Your task to perform on an android device: turn off smart reply in the gmail app Image 0: 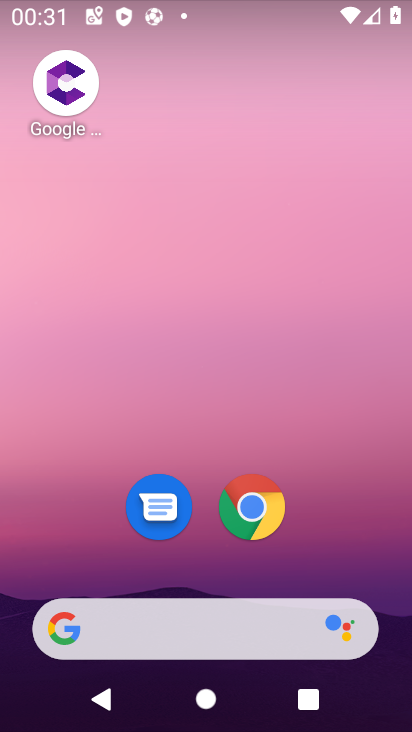
Step 0: drag from (224, 547) to (233, 138)
Your task to perform on an android device: turn off smart reply in the gmail app Image 1: 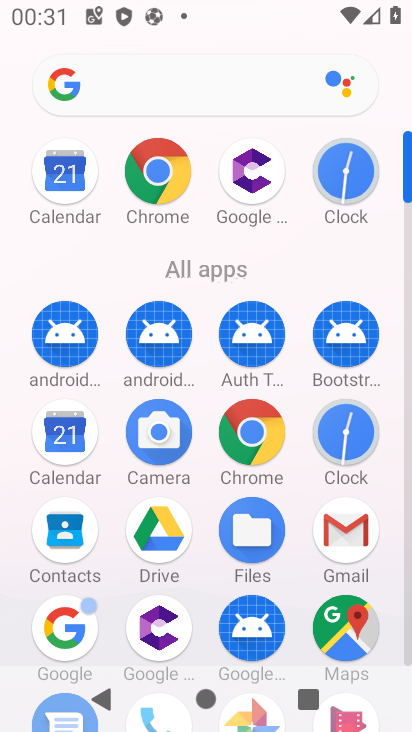
Step 1: click (348, 543)
Your task to perform on an android device: turn off smart reply in the gmail app Image 2: 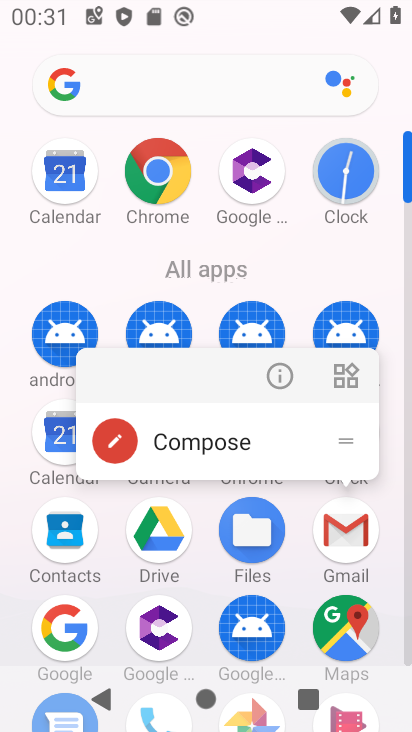
Step 2: click (289, 370)
Your task to perform on an android device: turn off smart reply in the gmail app Image 3: 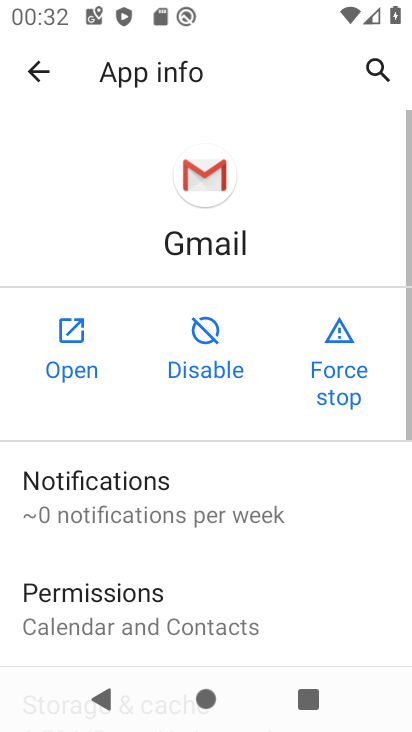
Step 3: click (46, 344)
Your task to perform on an android device: turn off smart reply in the gmail app Image 4: 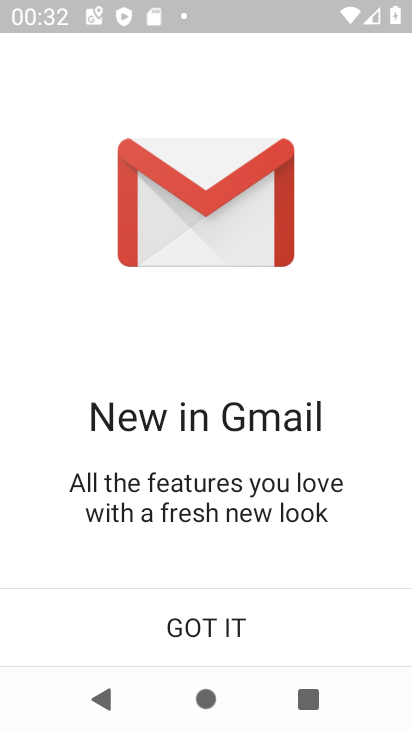
Step 4: click (182, 635)
Your task to perform on an android device: turn off smart reply in the gmail app Image 5: 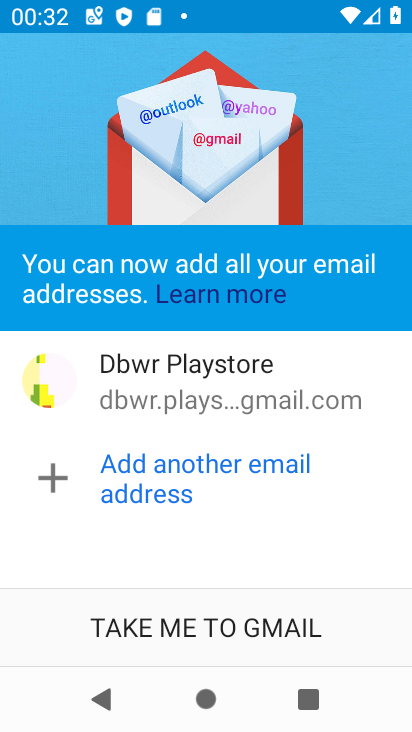
Step 5: click (225, 618)
Your task to perform on an android device: turn off smart reply in the gmail app Image 6: 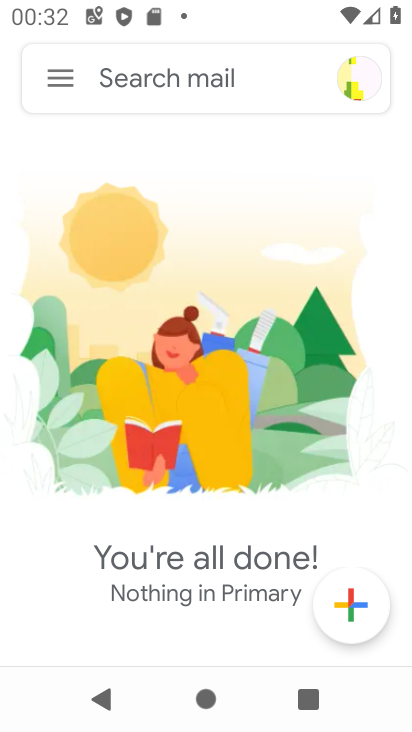
Step 6: click (55, 84)
Your task to perform on an android device: turn off smart reply in the gmail app Image 7: 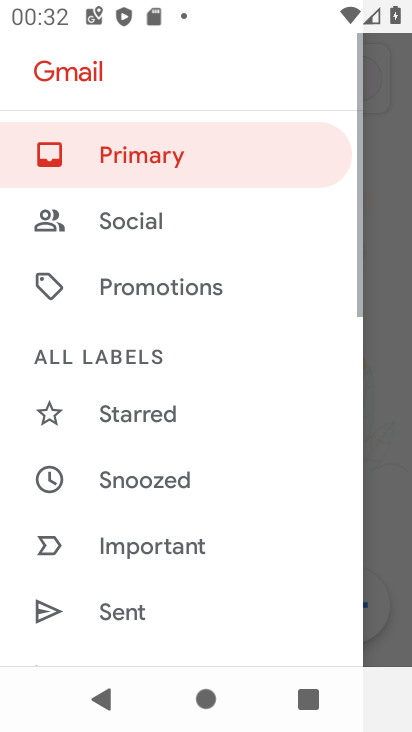
Step 7: drag from (210, 597) to (228, 69)
Your task to perform on an android device: turn off smart reply in the gmail app Image 8: 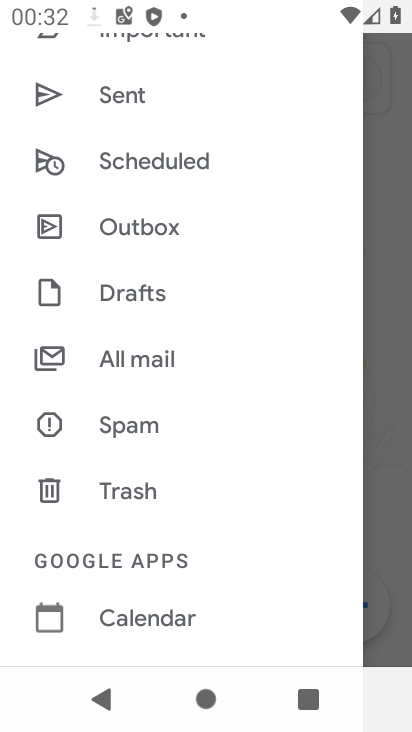
Step 8: drag from (148, 540) to (225, 9)
Your task to perform on an android device: turn off smart reply in the gmail app Image 9: 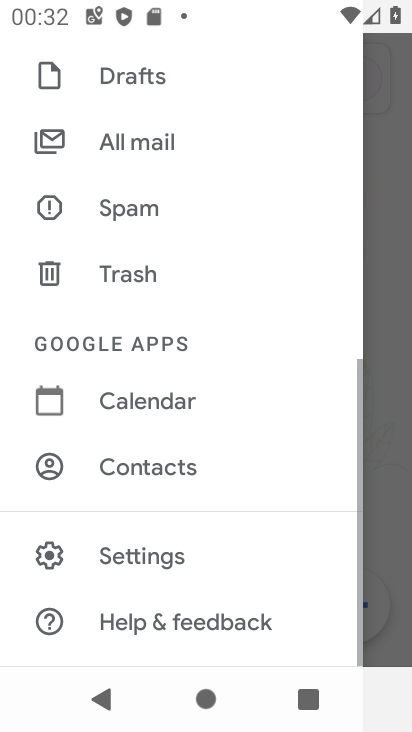
Step 9: click (121, 543)
Your task to perform on an android device: turn off smart reply in the gmail app Image 10: 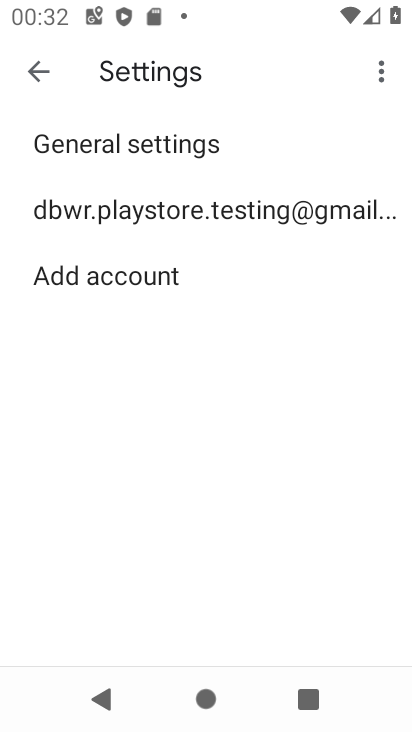
Step 10: click (245, 189)
Your task to perform on an android device: turn off smart reply in the gmail app Image 11: 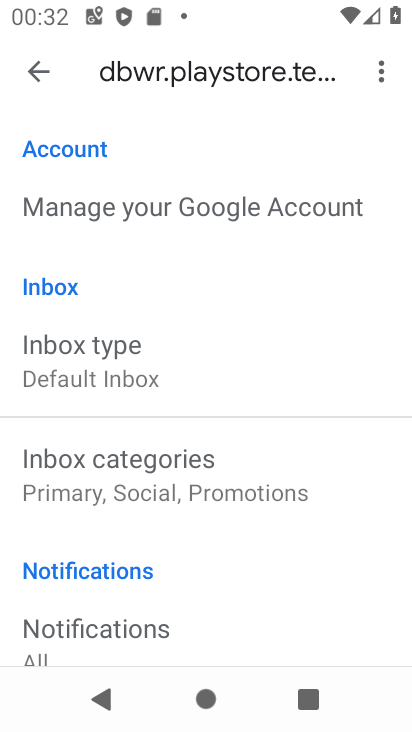
Step 11: drag from (203, 494) to (308, 98)
Your task to perform on an android device: turn off smart reply in the gmail app Image 12: 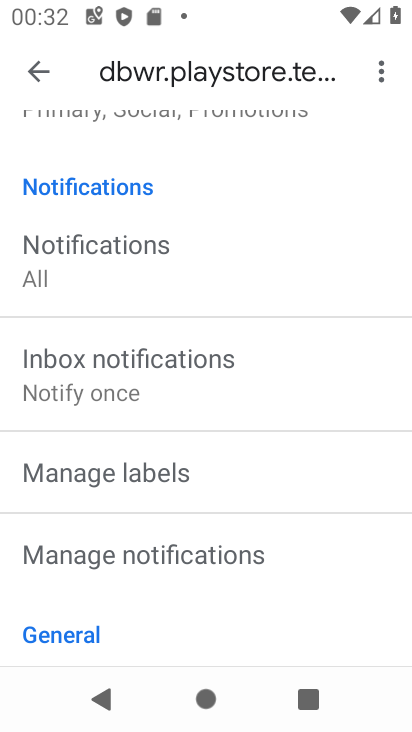
Step 12: drag from (230, 553) to (299, 235)
Your task to perform on an android device: turn off smart reply in the gmail app Image 13: 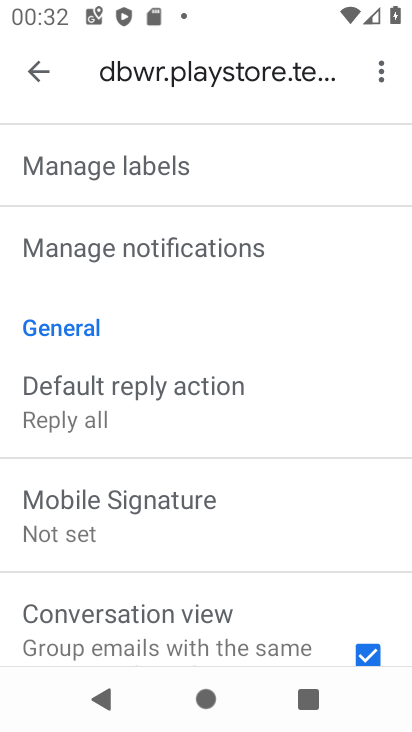
Step 13: drag from (182, 547) to (270, 124)
Your task to perform on an android device: turn off smart reply in the gmail app Image 14: 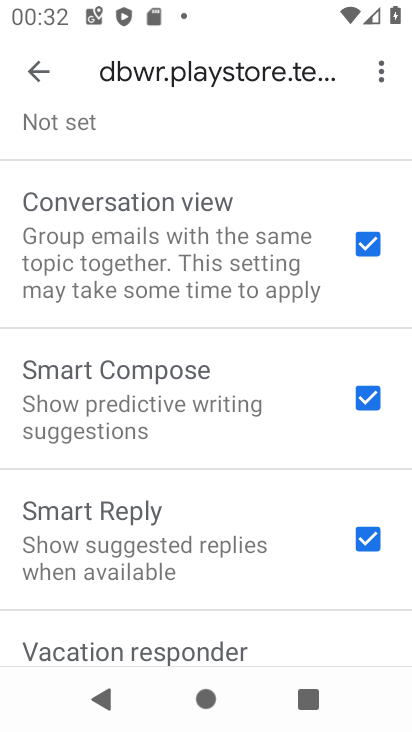
Step 14: drag from (179, 537) to (250, 279)
Your task to perform on an android device: turn off smart reply in the gmail app Image 15: 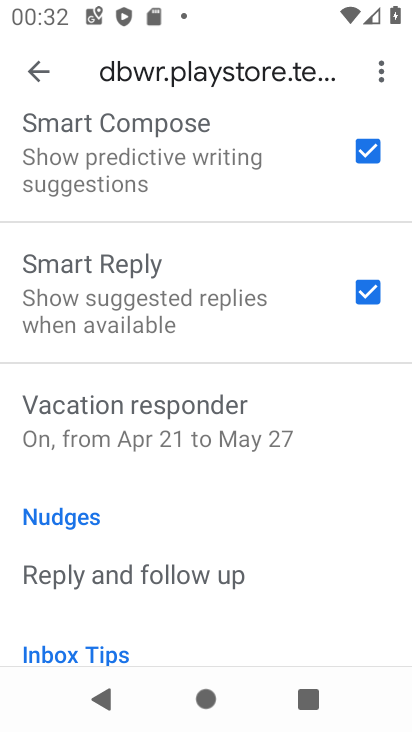
Step 15: drag from (176, 512) to (203, 295)
Your task to perform on an android device: turn off smart reply in the gmail app Image 16: 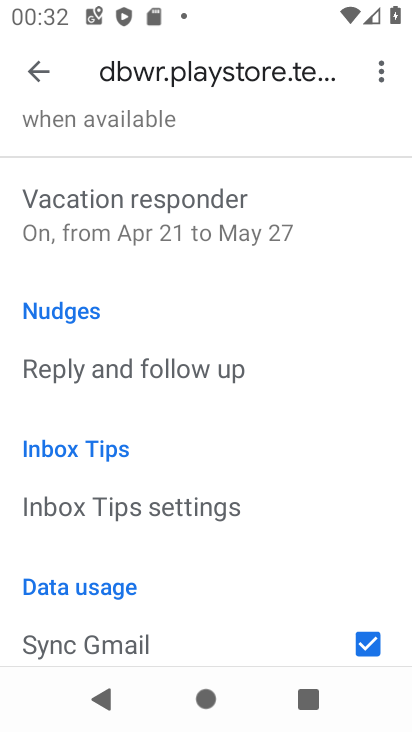
Step 16: drag from (250, 226) to (251, 484)
Your task to perform on an android device: turn off smart reply in the gmail app Image 17: 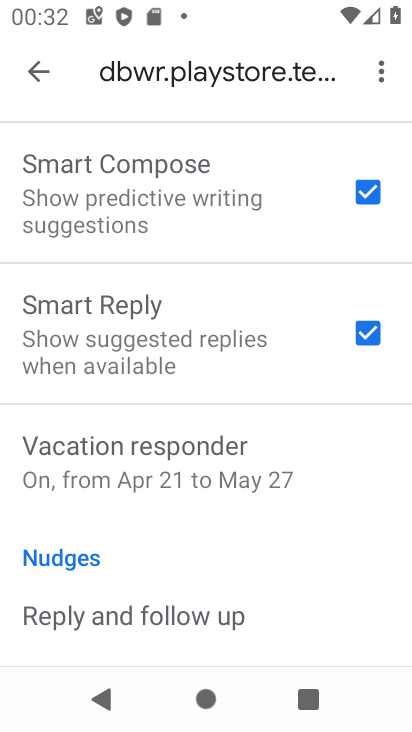
Step 17: click (362, 332)
Your task to perform on an android device: turn off smart reply in the gmail app Image 18: 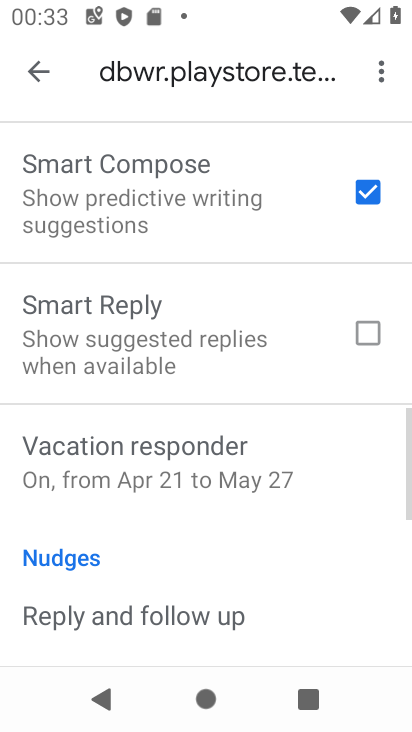
Step 18: task complete